Your task to perform on an android device: change the clock display to analog Image 0: 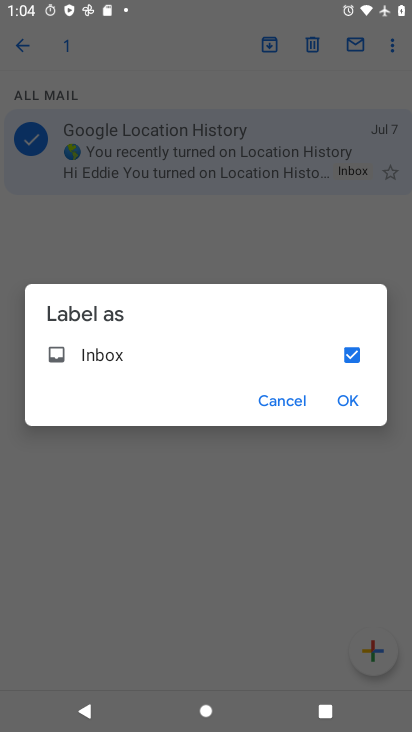
Step 0: press back button
Your task to perform on an android device: change the clock display to analog Image 1: 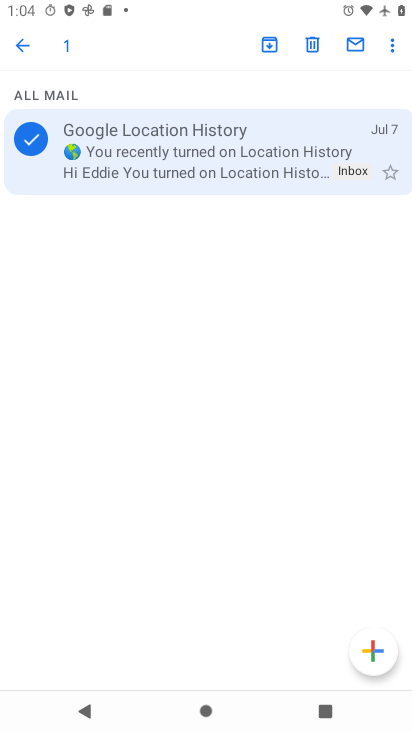
Step 1: press home button
Your task to perform on an android device: change the clock display to analog Image 2: 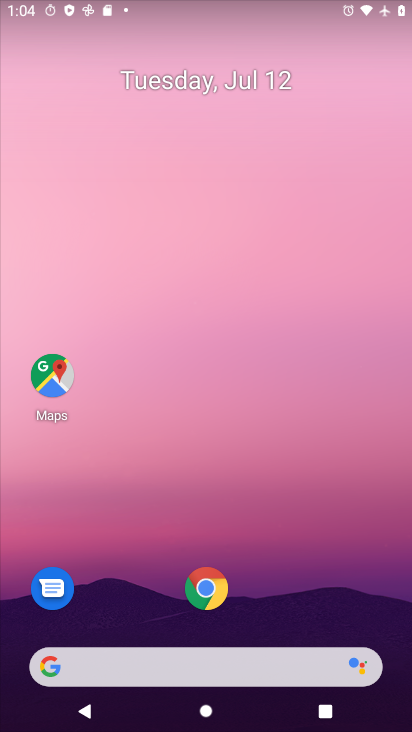
Step 2: drag from (196, 670) to (336, 153)
Your task to perform on an android device: change the clock display to analog Image 3: 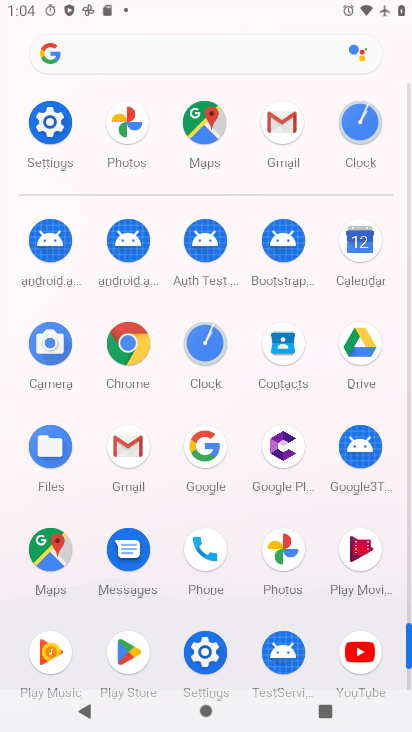
Step 3: click (208, 343)
Your task to perform on an android device: change the clock display to analog Image 4: 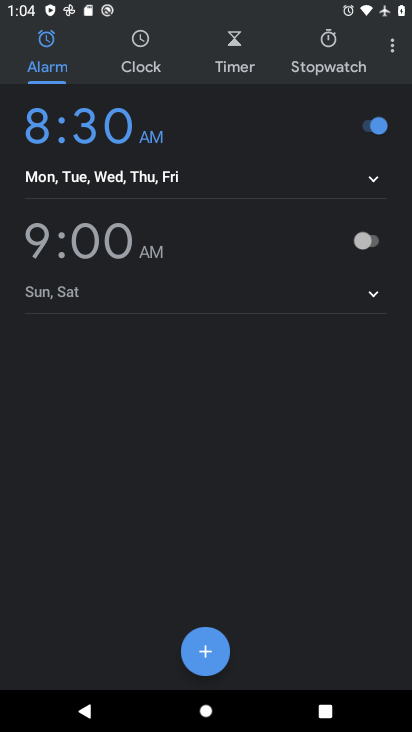
Step 4: click (392, 36)
Your task to perform on an android device: change the clock display to analog Image 5: 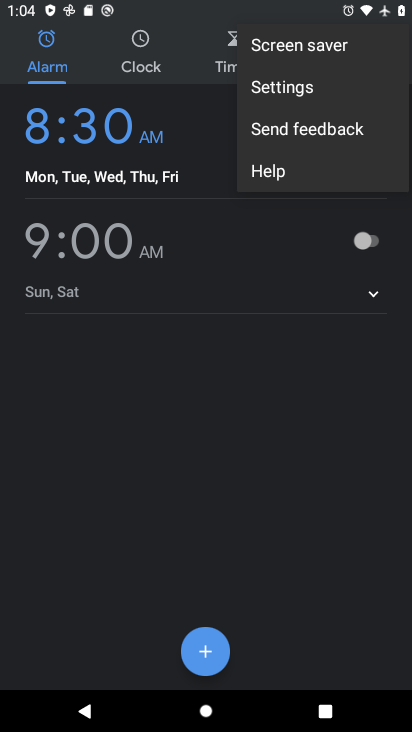
Step 5: click (321, 95)
Your task to perform on an android device: change the clock display to analog Image 6: 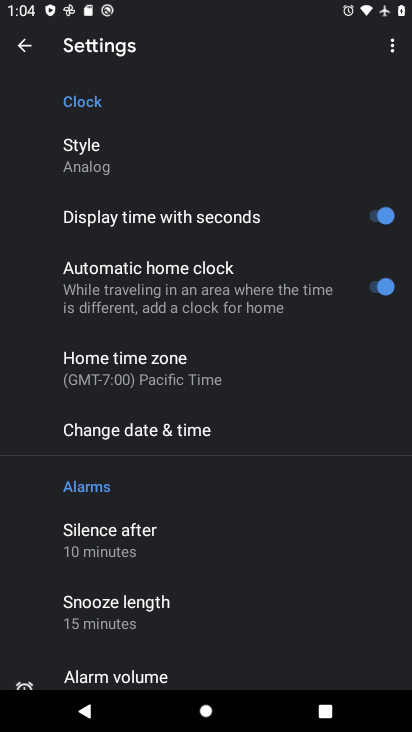
Step 6: task complete